Your task to perform on an android device: Find coffee shops on Maps Image 0: 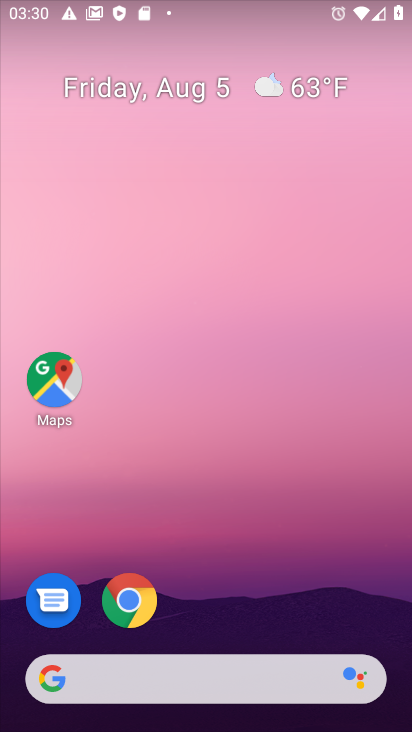
Step 0: drag from (236, 640) to (220, 95)
Your task to perform on an android device: Find coffee shops on Maps Image 1: 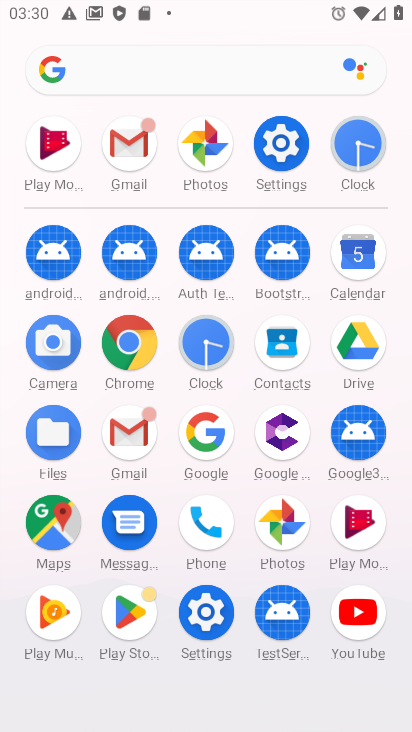
Step 1: click (55, 520)
Your task to perform on an android device: Find coffee shops on Maps Image 2: 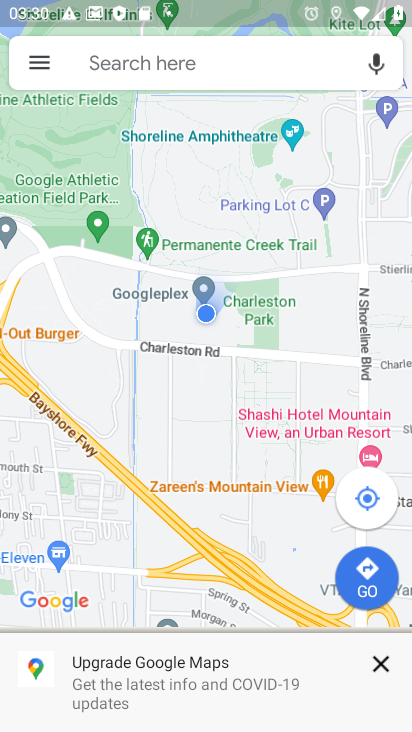
Step 2: click (180, 66)
Your task to perform on an android device: Find coffee shops on Maps Image 3: 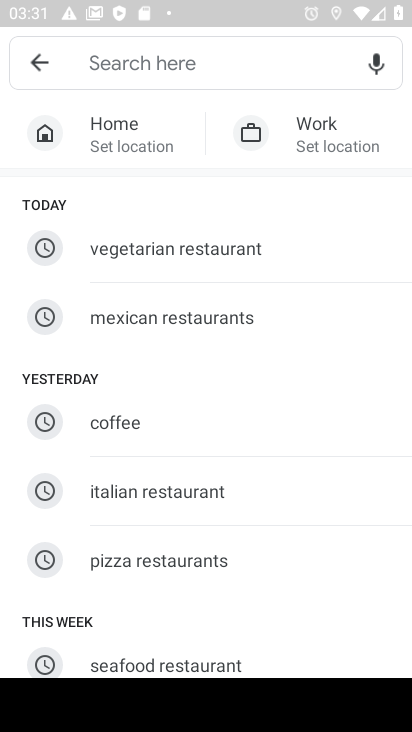
Step 3: type "coffee shops"
Your task to perform on an android device: Find coffee shops on Maps Image 4: 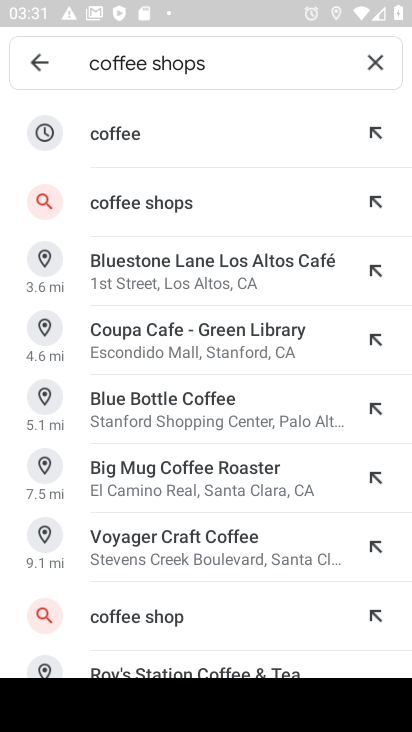
Step 4: click (146, 202)
Your task to perform on an android device: Find coffee shops on Maps Image 5: 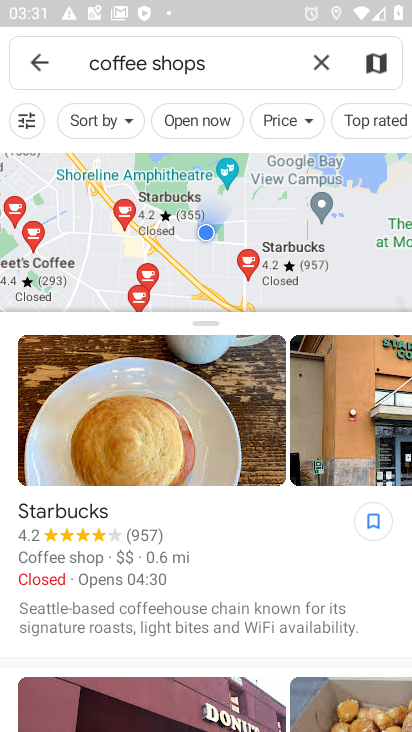
Step 5: task complete